Your task to perform on an android device: Open maps Image 0: 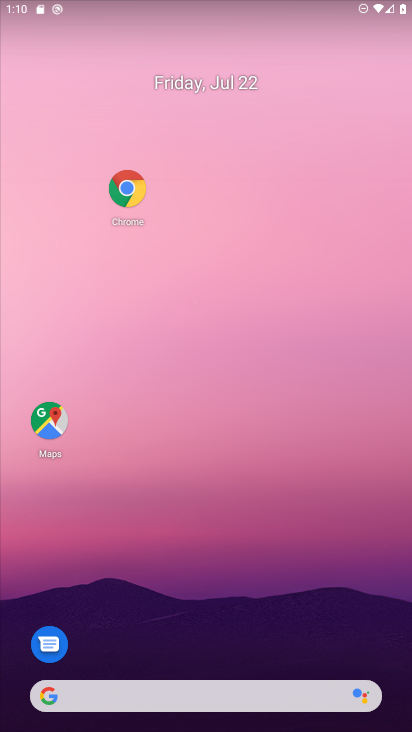
Step 0: click (59, 414)
Your task to perform on an android device: Open maps Image 1: 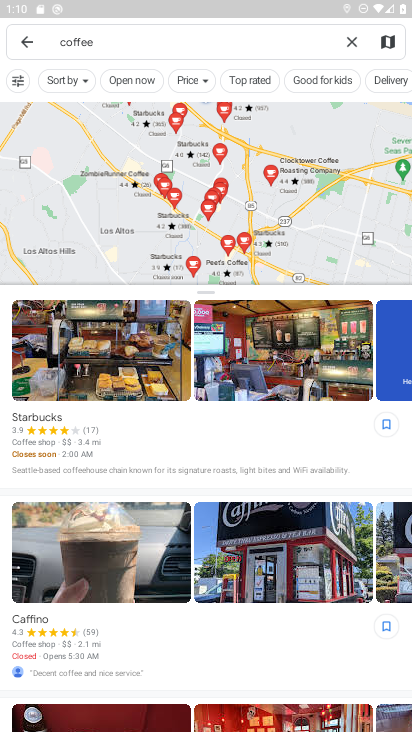
Step 1: task complete